Your task to perform on an android device: When is my next meeting? Image 0: 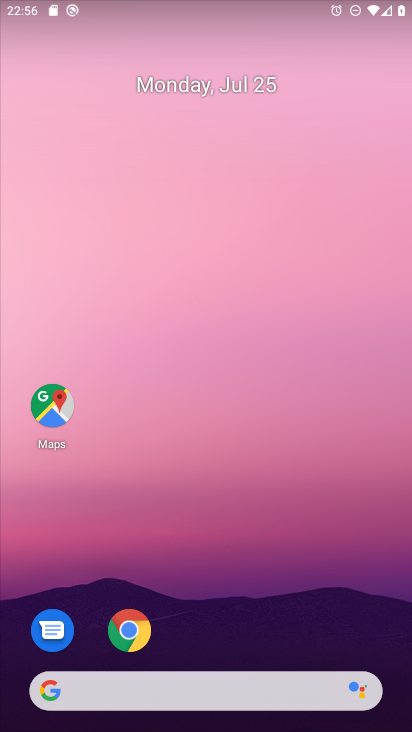
Step 0: drag from (330, 571) to (294, 32)
Your task to perform on an android device: When is my next meeting? Image 1: 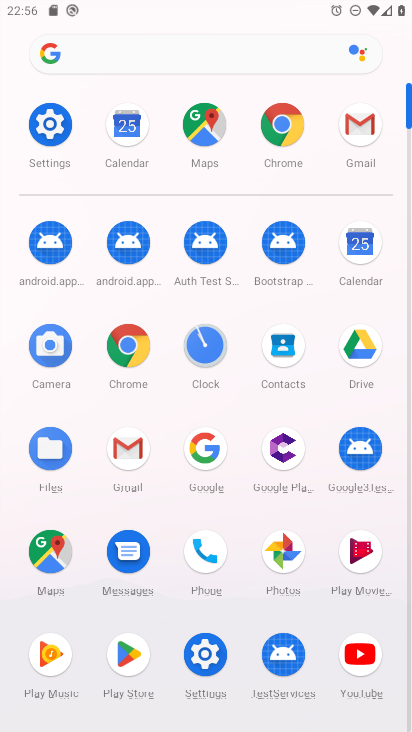
Step 1: click (367, 246)
Your task to perform on an android device: When is my next meeting? Image 2: 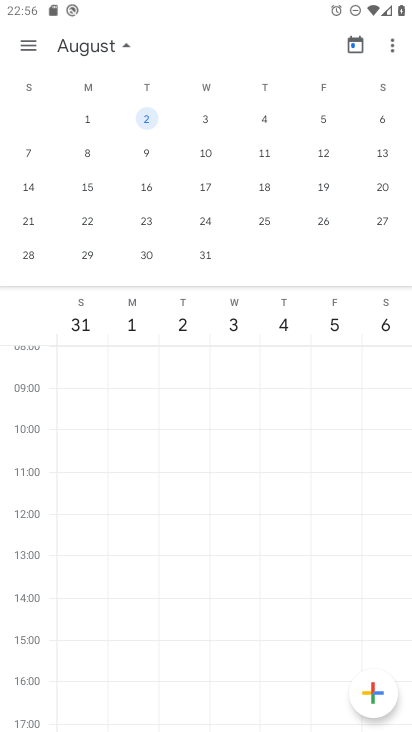
Step 2: click (109, 45)
Your task to perform on an android device: When is my next meeting? Image 3: 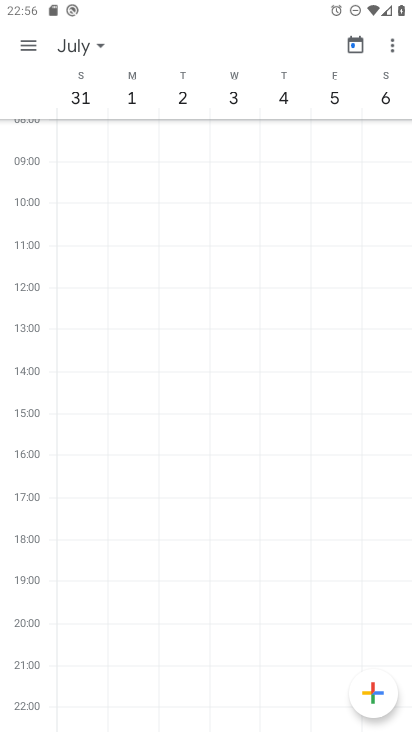
Step 3: click (81, 45)
Your task to perform on an android device: When is my next meeting? Image 4: 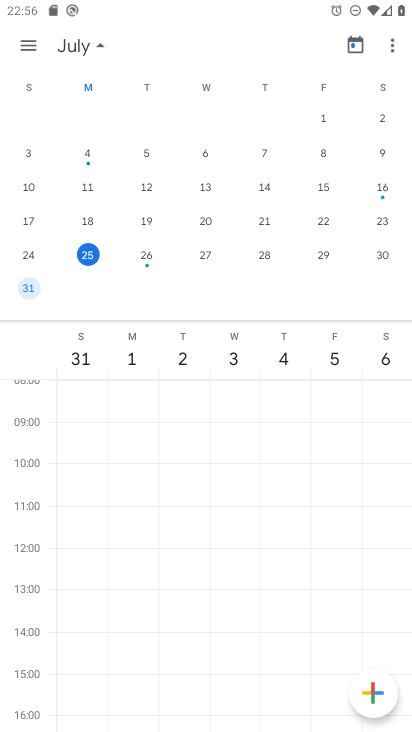
Step 4: drag from (38, 178) to (180, 200)
Your task to perform on an android device: When is my next meeting? Image 5: 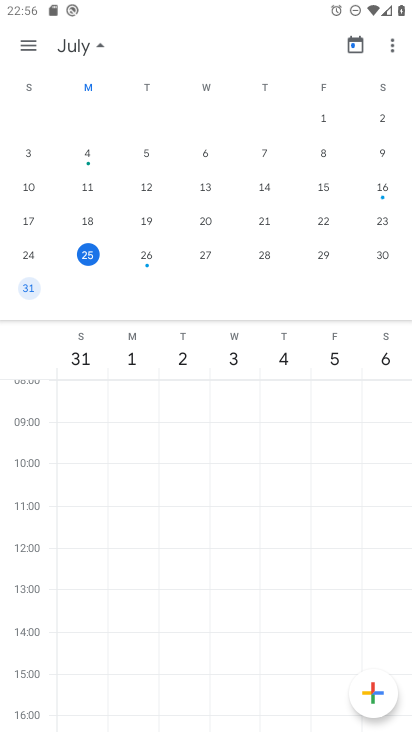
Step 5: click (181, 246)
Your task to perform on an android device: When is my next meeting? Image 6: 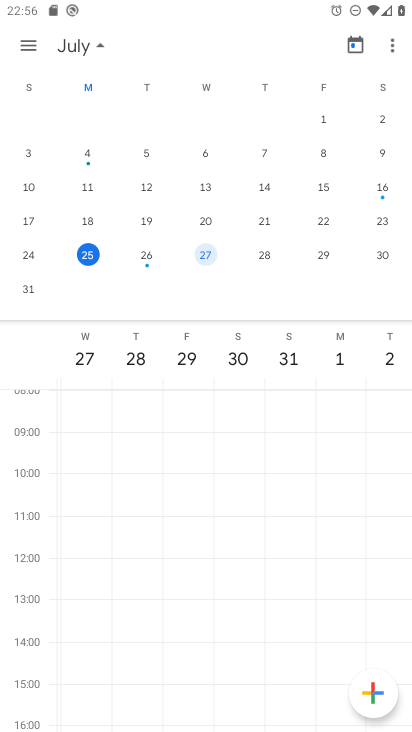
Step 6: click (205, 256)
Your task to perform on an android device: When is my next meeting? Image 7: 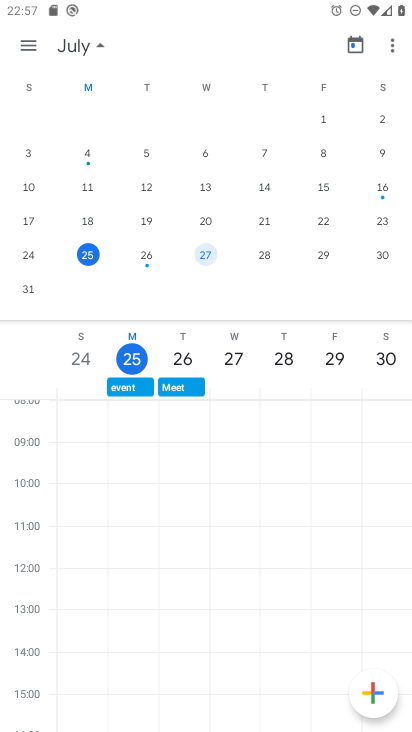
Step 7: click (80, 255)
Your task to perform on an android device: When is my next meeting? Image 8: 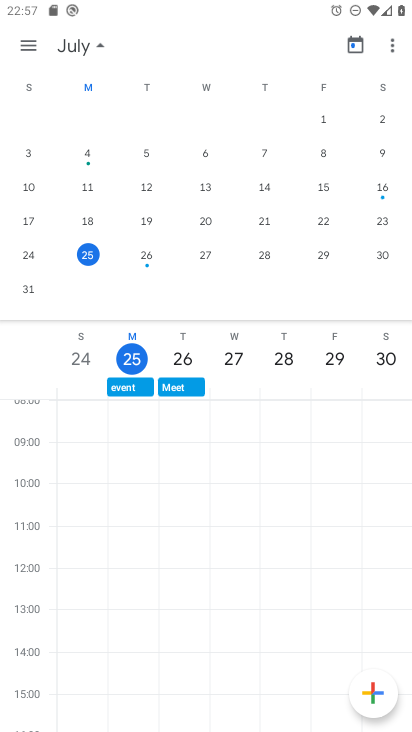
Step 8: click (86, 255)
Your task to perform on an android device: When is my next meeting? Image 9: 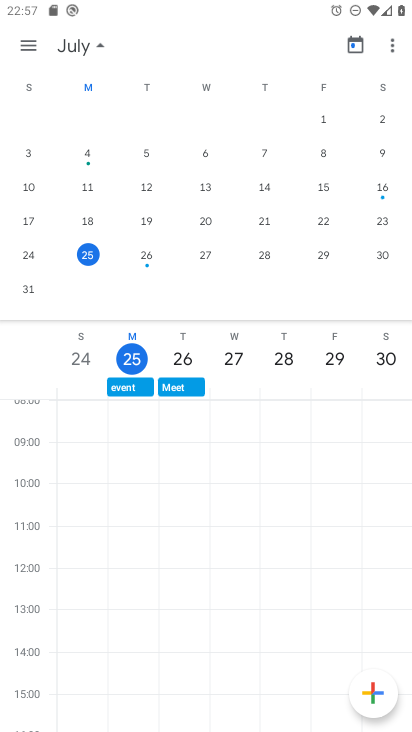
Step 9: click (86, 255)
Your task to perform on an android device: When is my next meeting? Image 10: 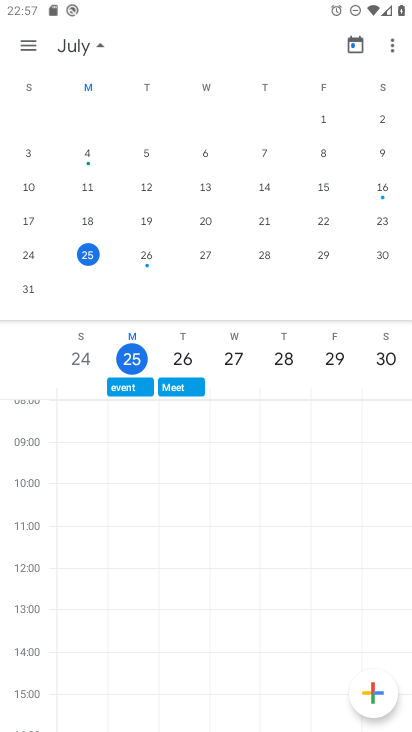
Step 10: click (86, 255)
Your task to perform on an android device: When is my next meeting? Image 11: 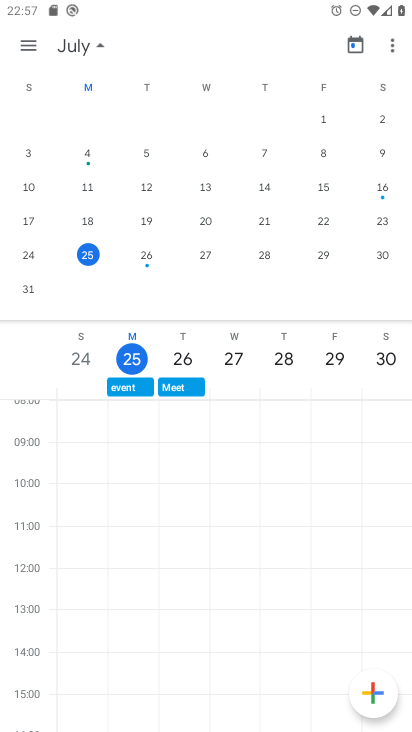
Step 11: task complete